Your task to perform on an android device: turn on location history Image 0: 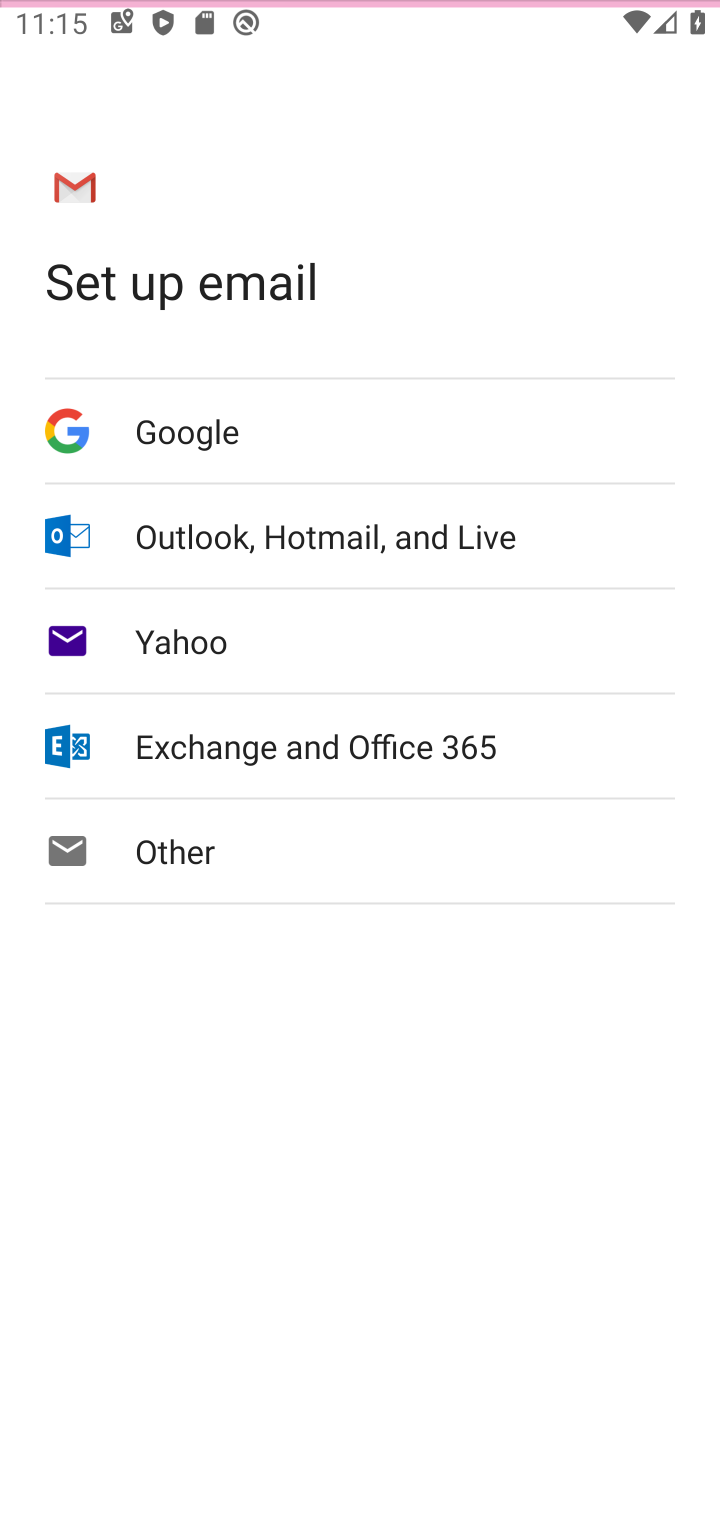
Step 0: press back button
Your task to perform on an android device: turn on location history Image 1: 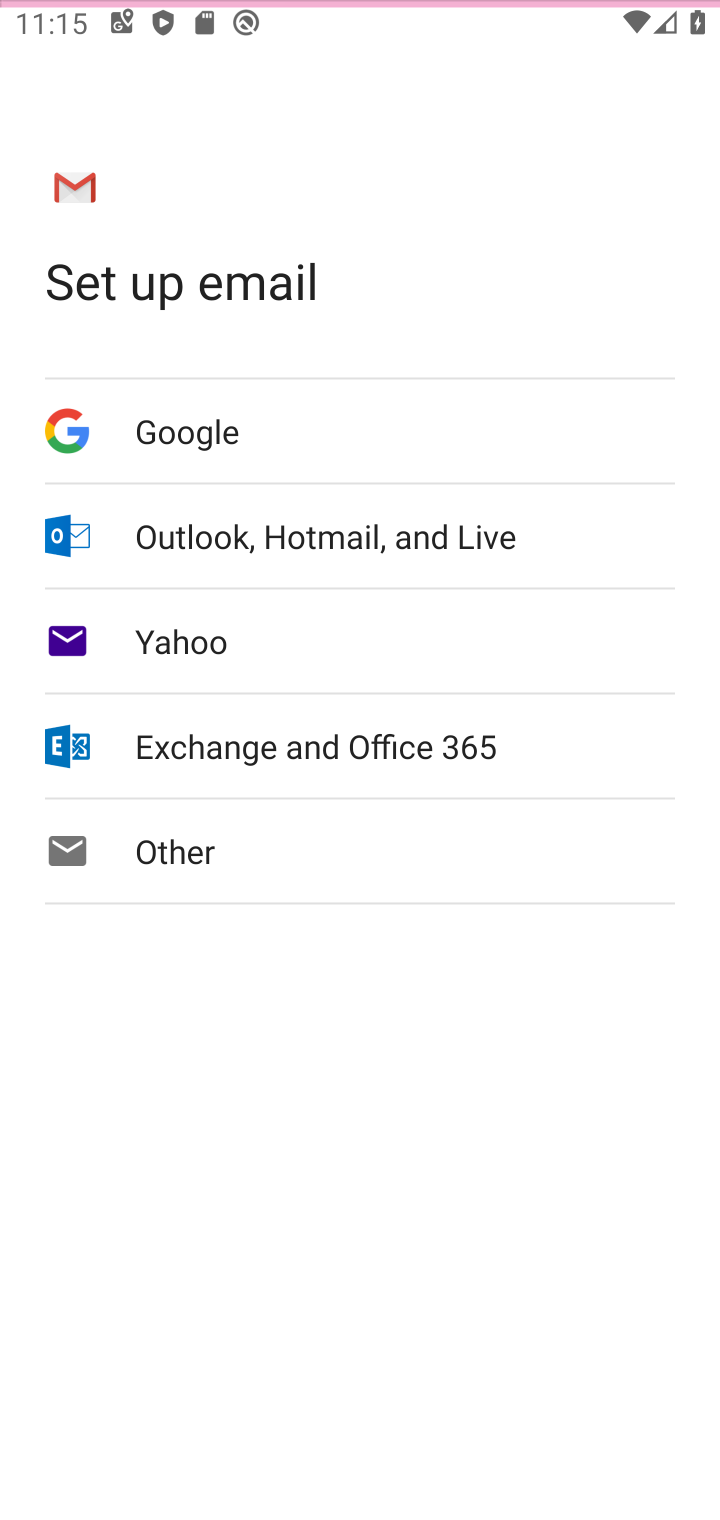
Step 1: press home button
Your task to perform on an android device: turn on location history Image 2: 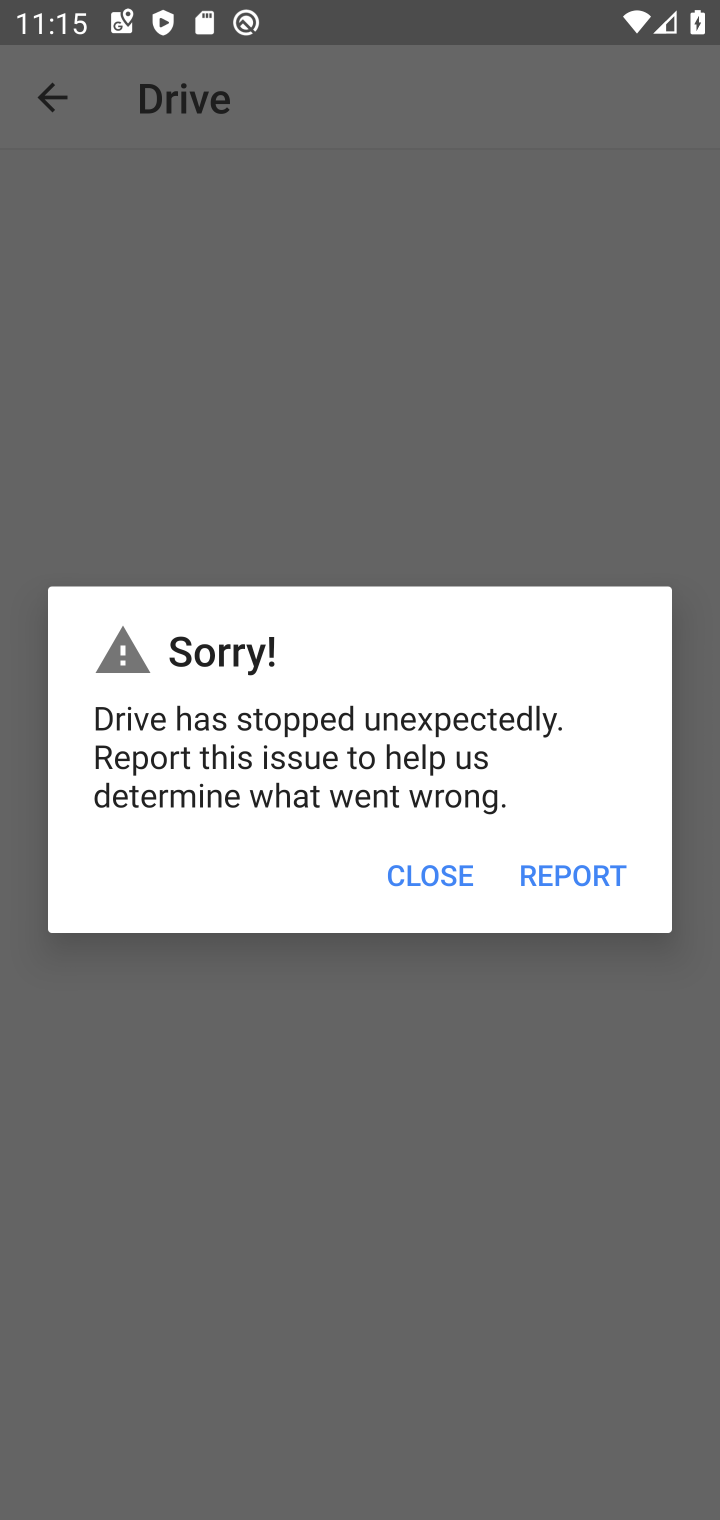
Step 2: press home button
Your task to perform on an android device: turn on location history Image 3: 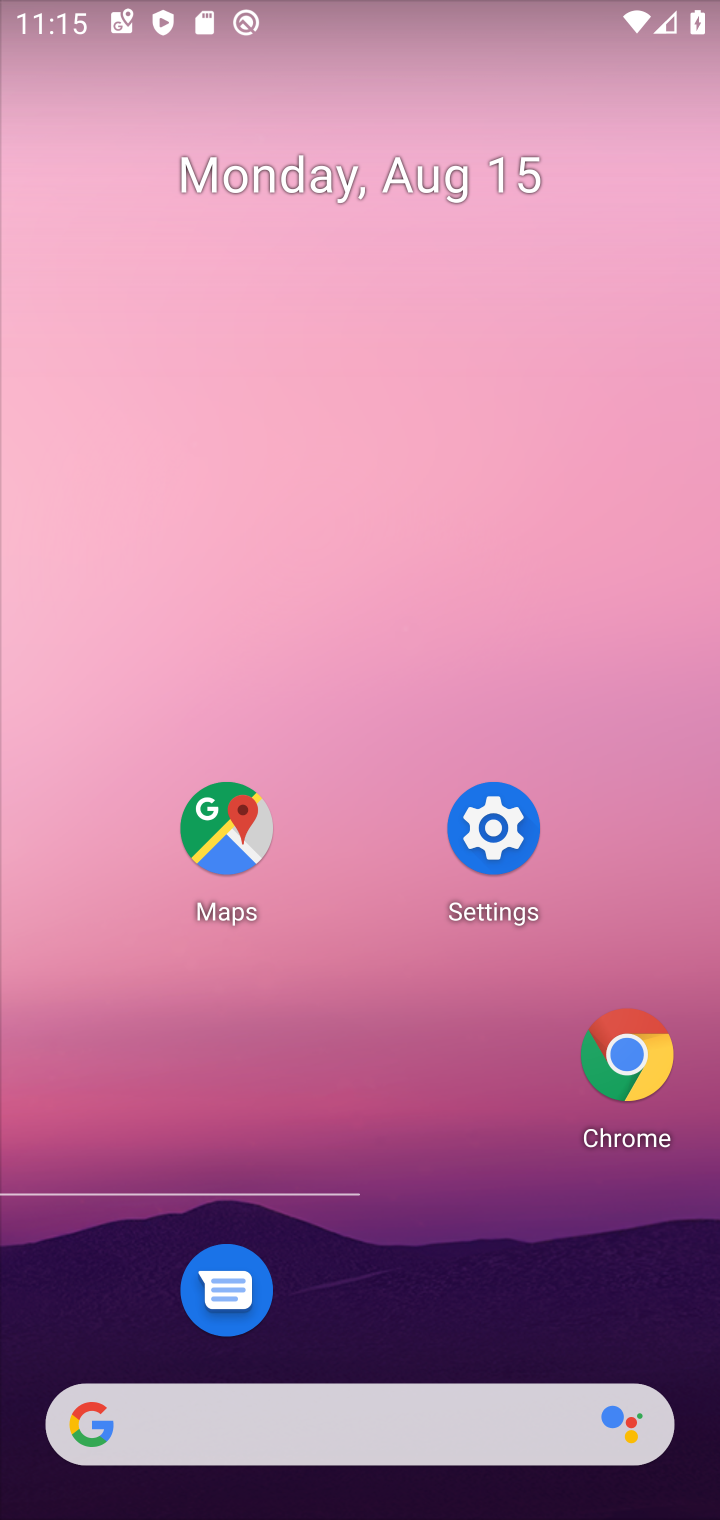
Step 3: press back button
Your task to perform on an android device: turn on location history Image 4: 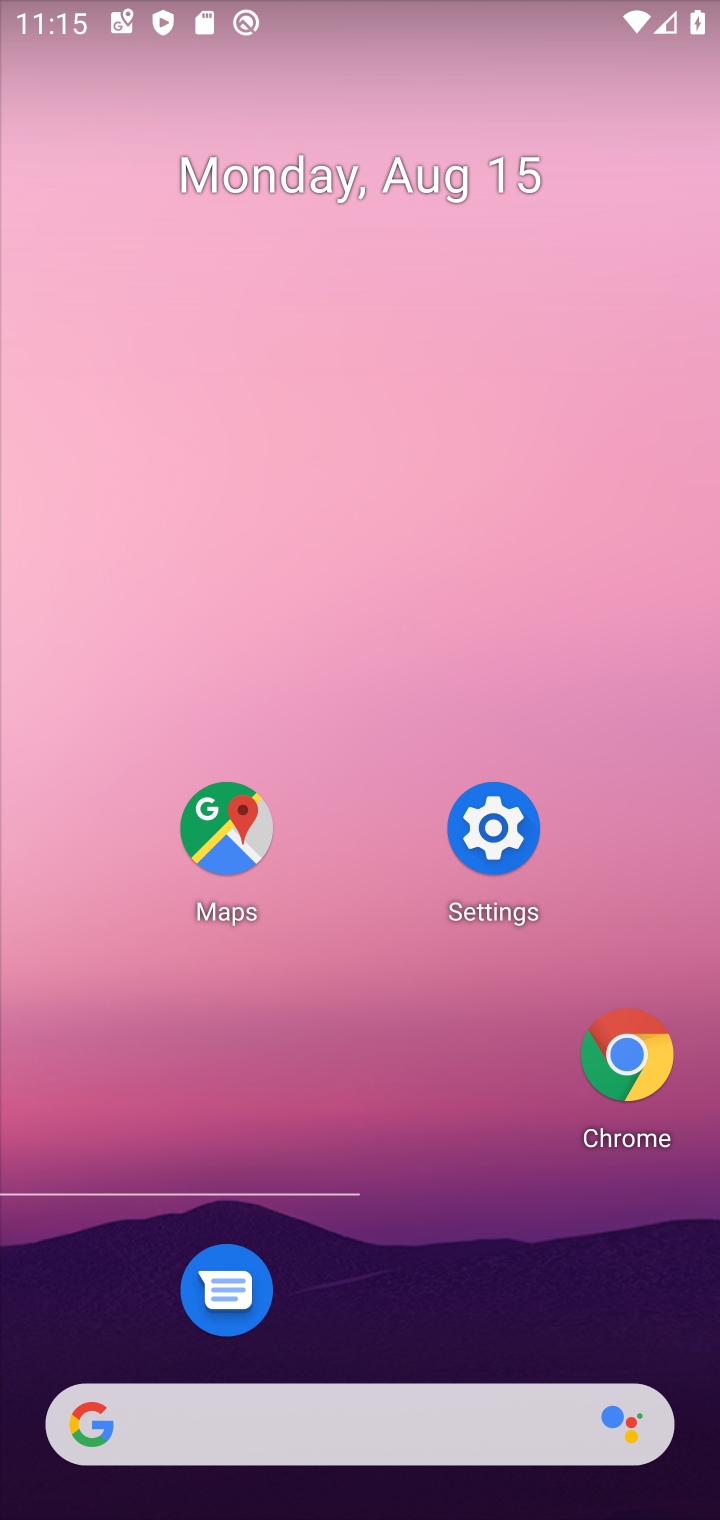
Step 4: click (223, 825)
Your task to perform on an android device: turn on location history Image 5: 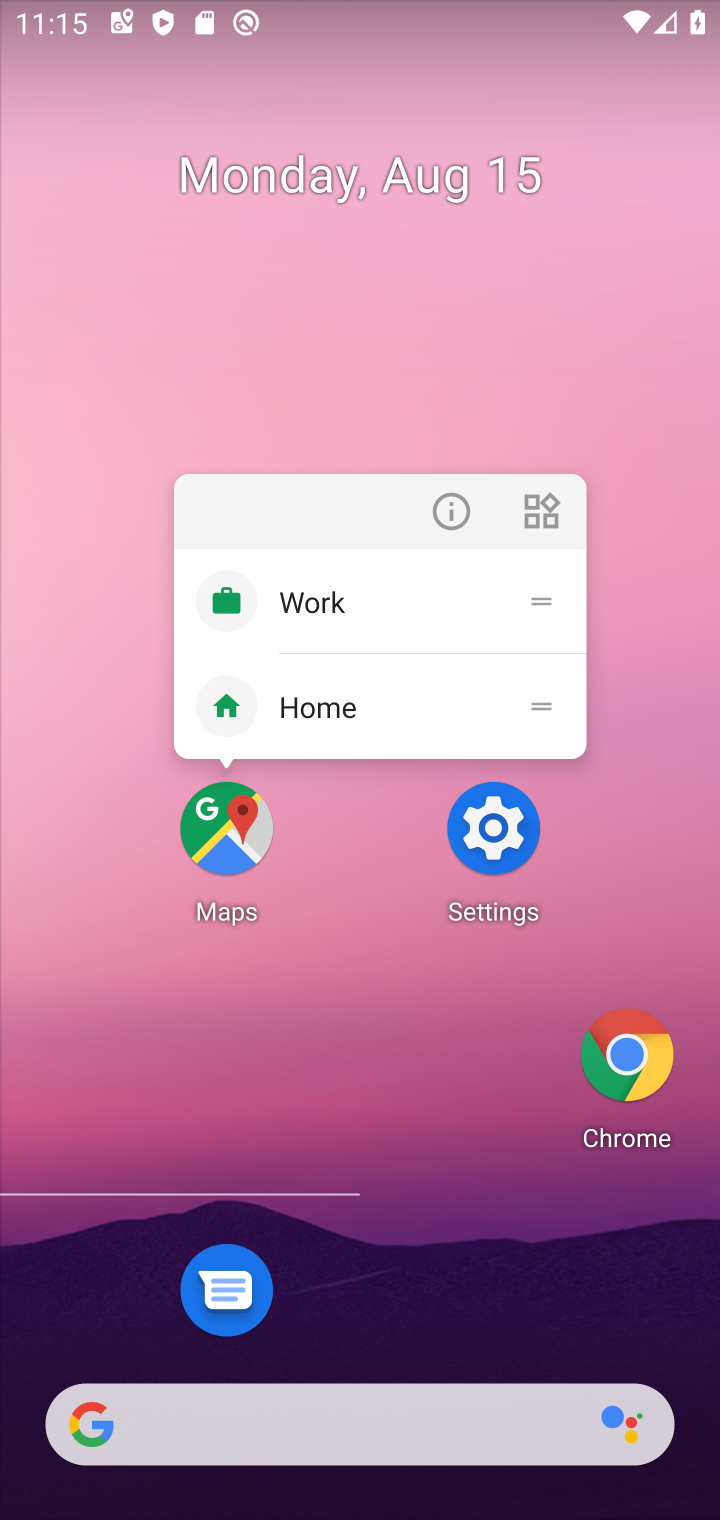
Step 5: click (223, 833)
Your task to perform on an android device: turn on location history Image 6: 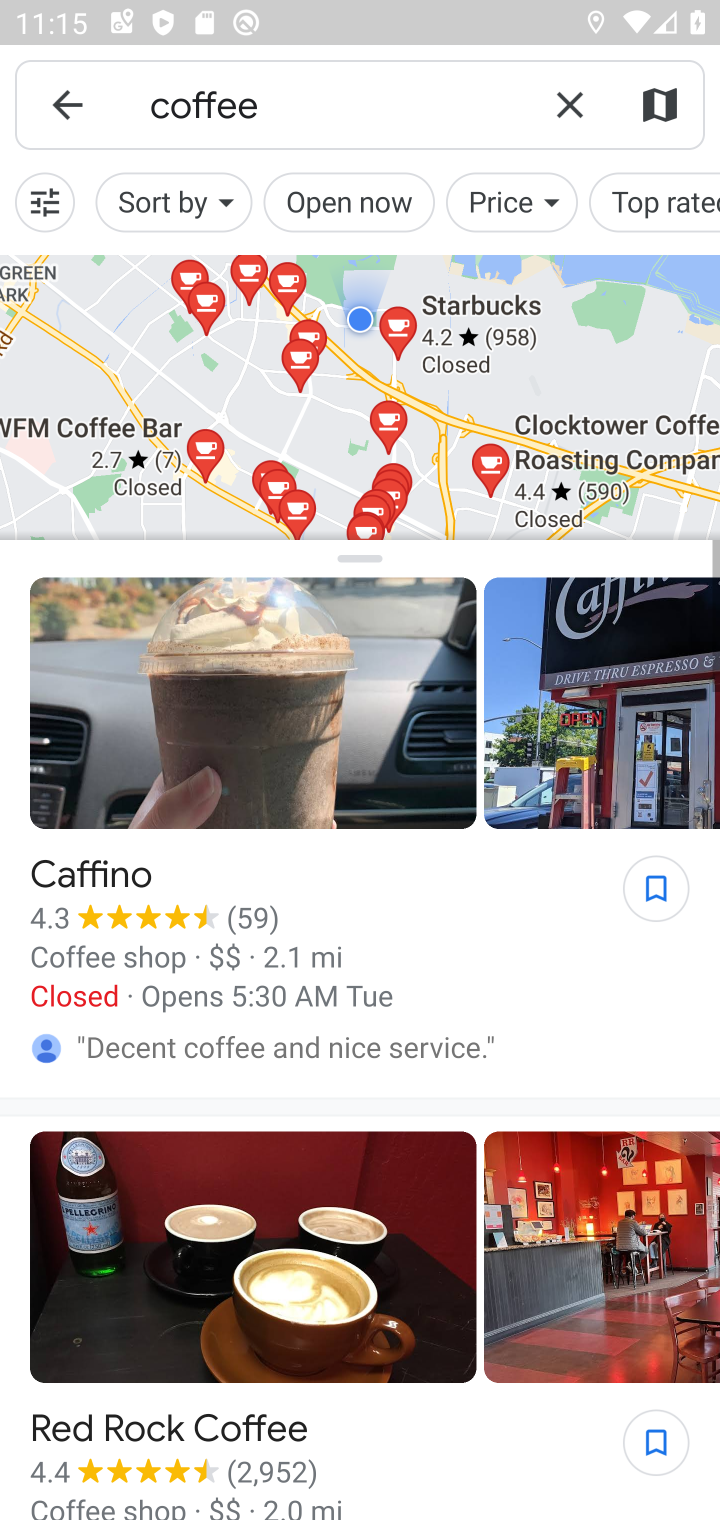
Step 6: press back button
Your task to perform on an android device: turn on location history Image 7: 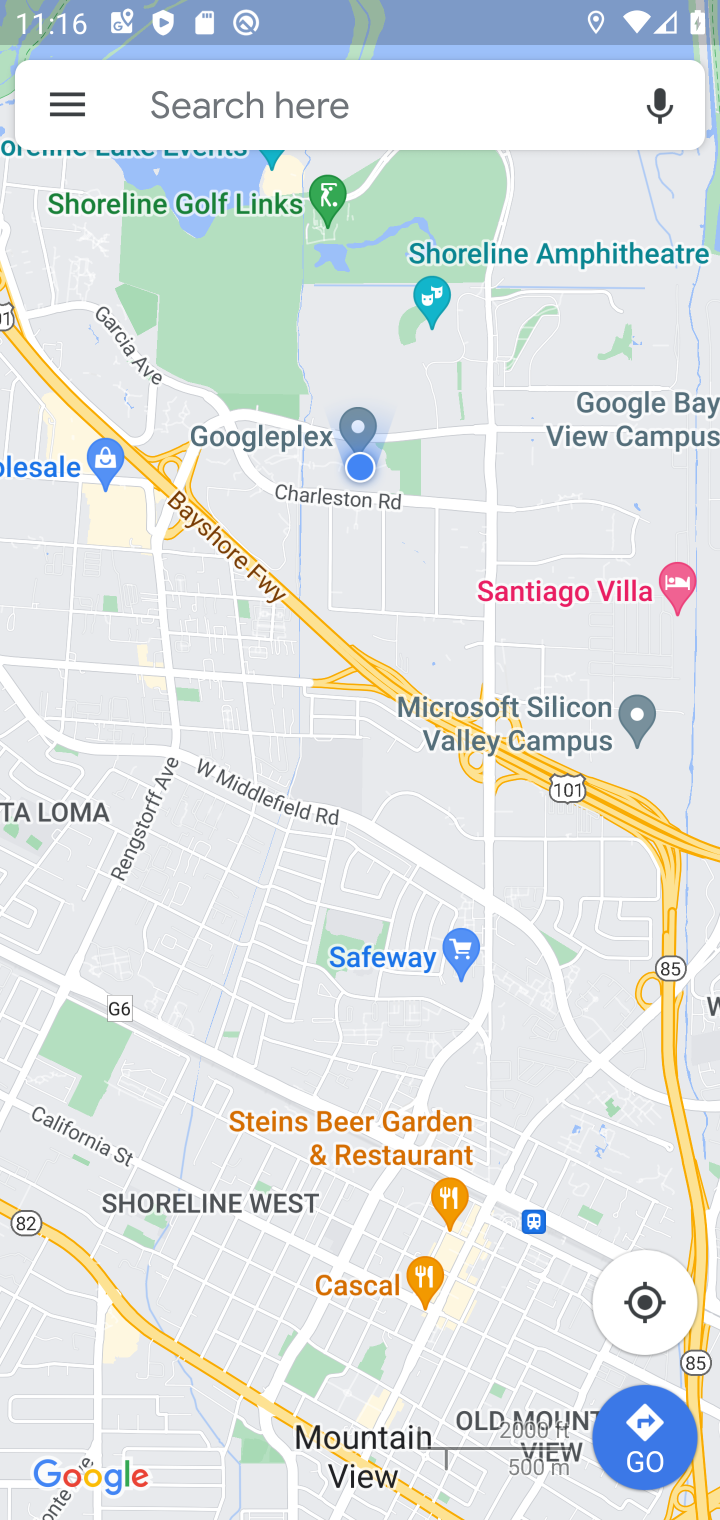
Step 7: click (63, 107)
Your task to perform on an android device: turn on location history Image 8: 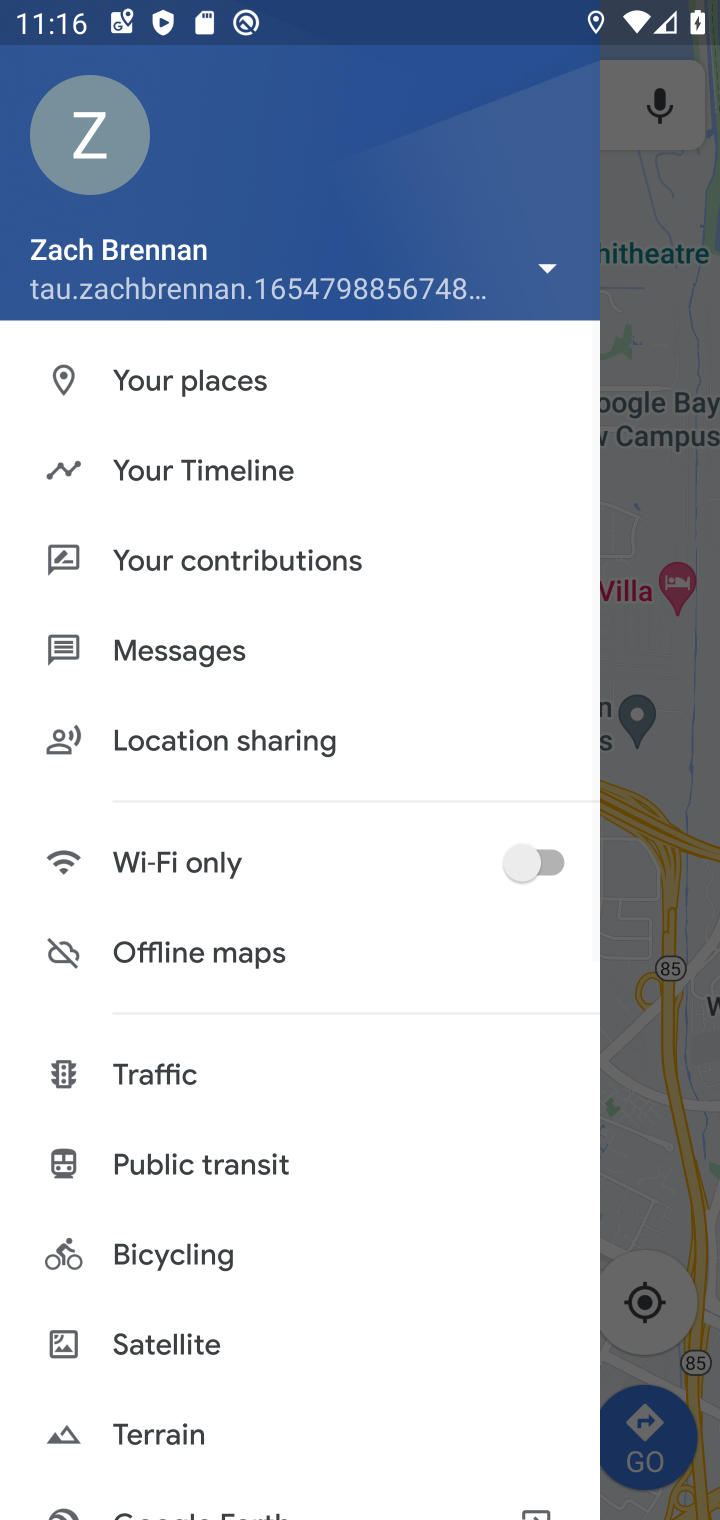
Step 8: click (244, 478)
Your task to perform on an android device: turn on location history Image 9: 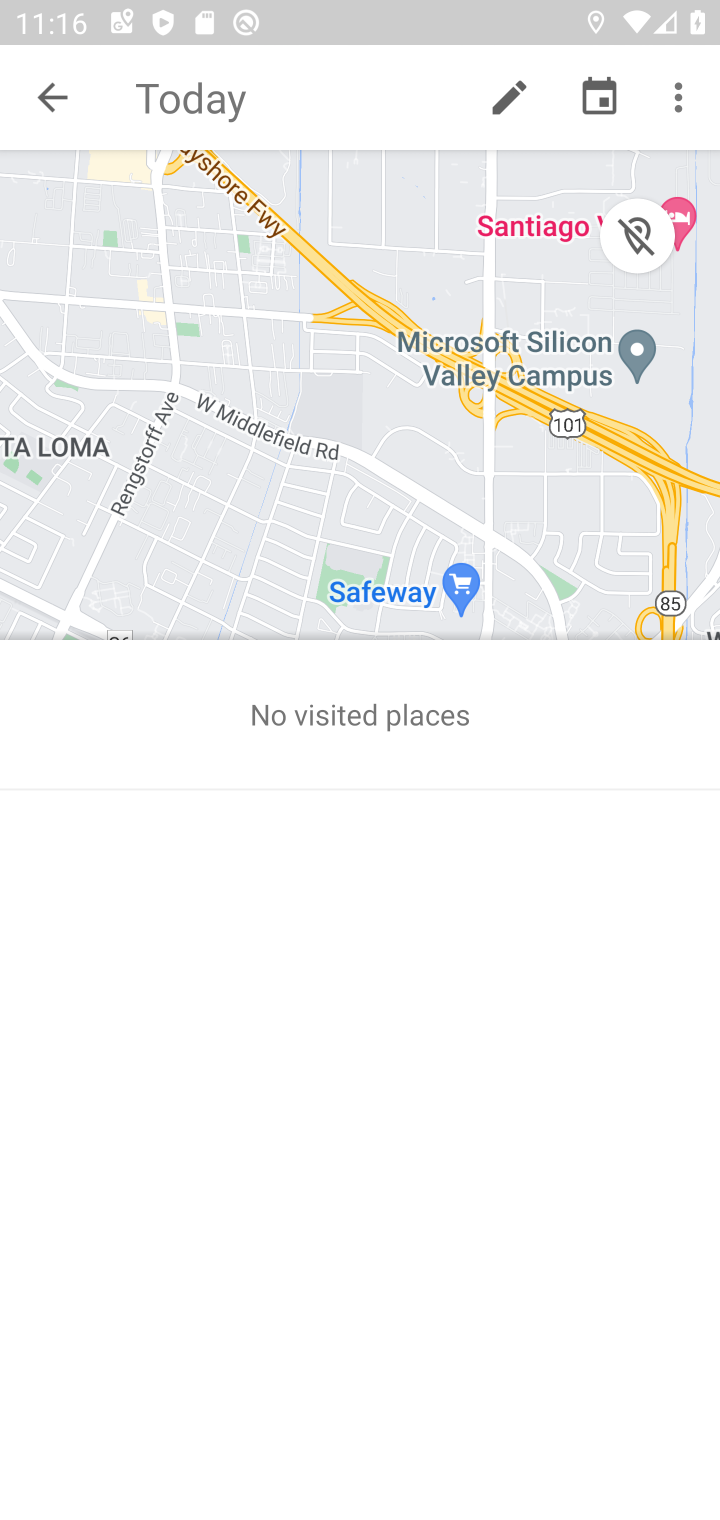
Step 9: click (673, 89)
Your task to perform on an android device: turn on location history Image 10: 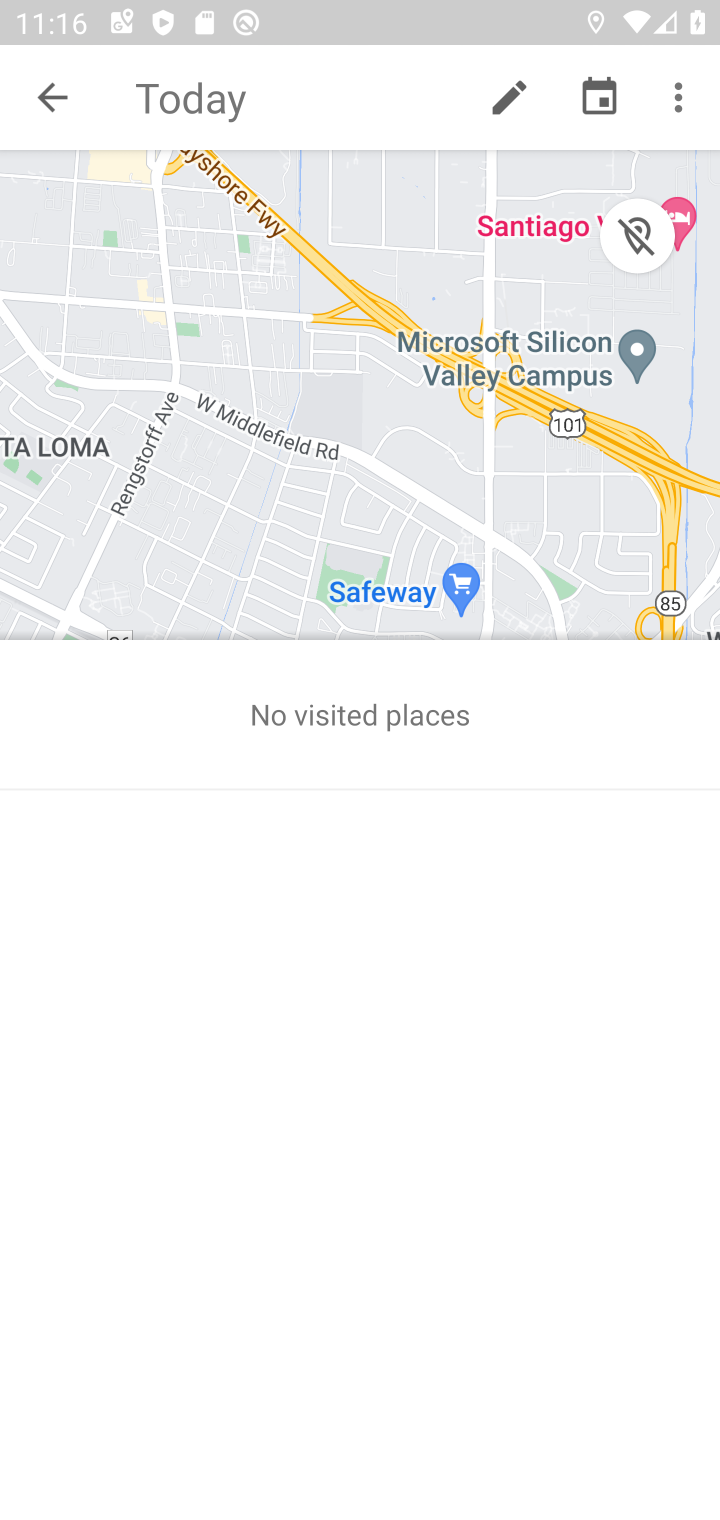
Step 10: click (678, 98)
Your task to perform on an android device: turn on location history Image 11: 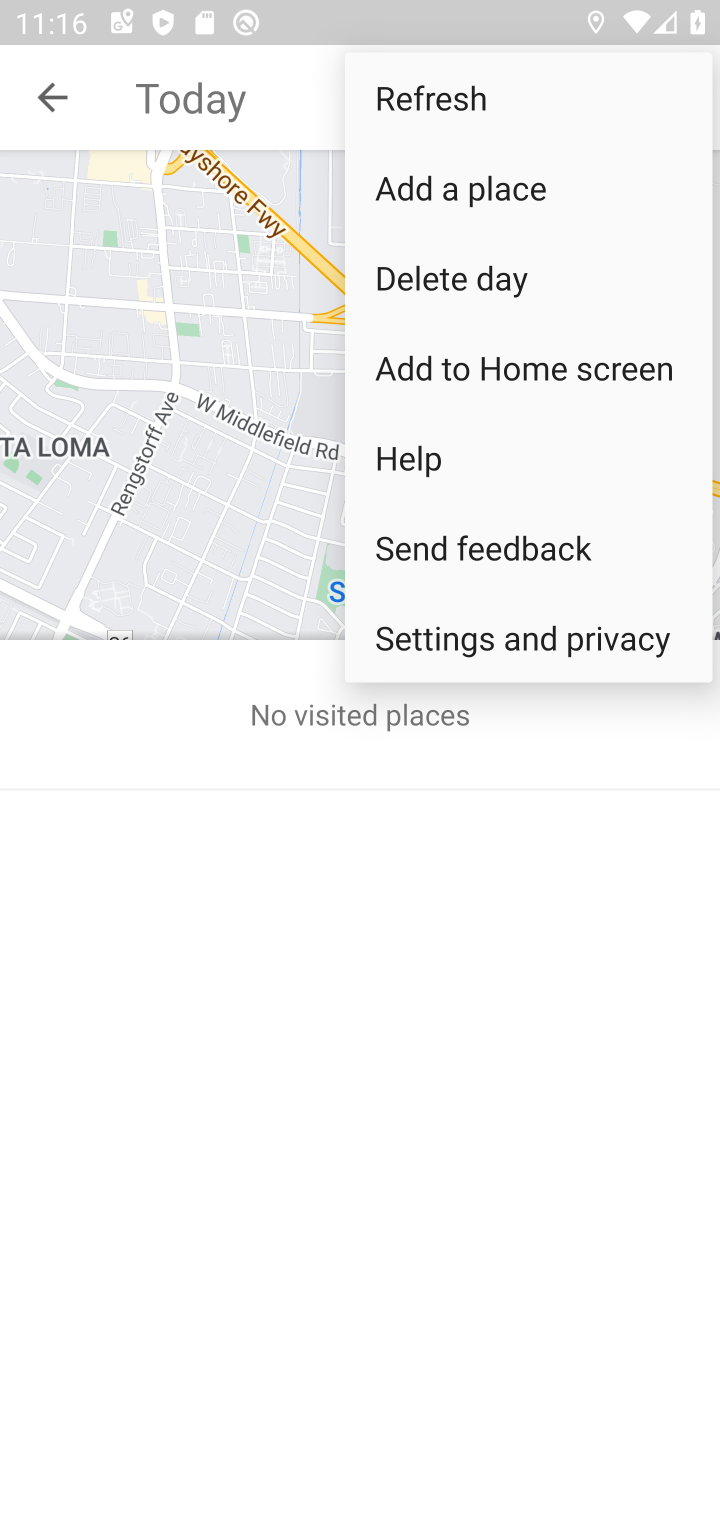
Step 11: click (513, 638)
Your task to perform on an android device: turn on location history Image 12: 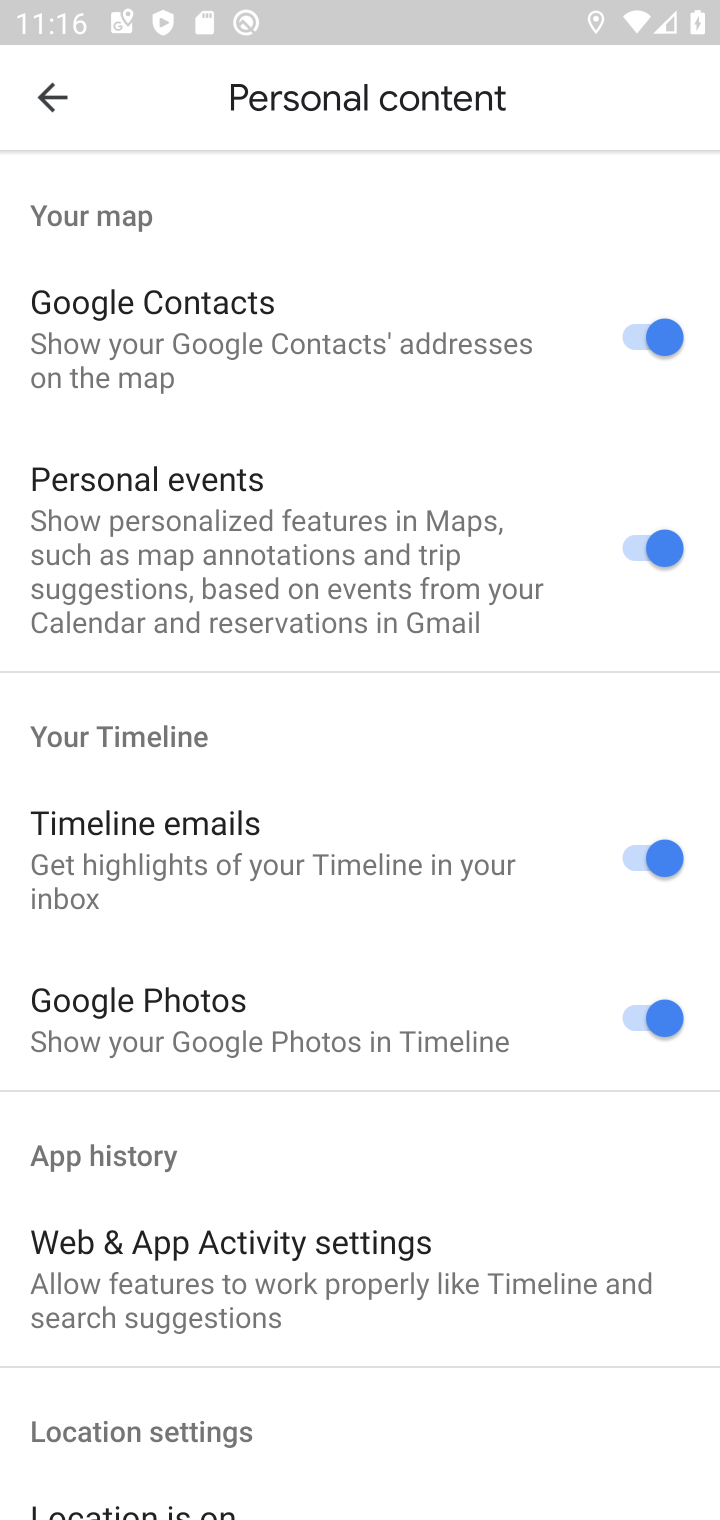
Step 12: drag from (335, 1155) to (573, 318)
Your task to perform on an android device: turn on location history Image 13: 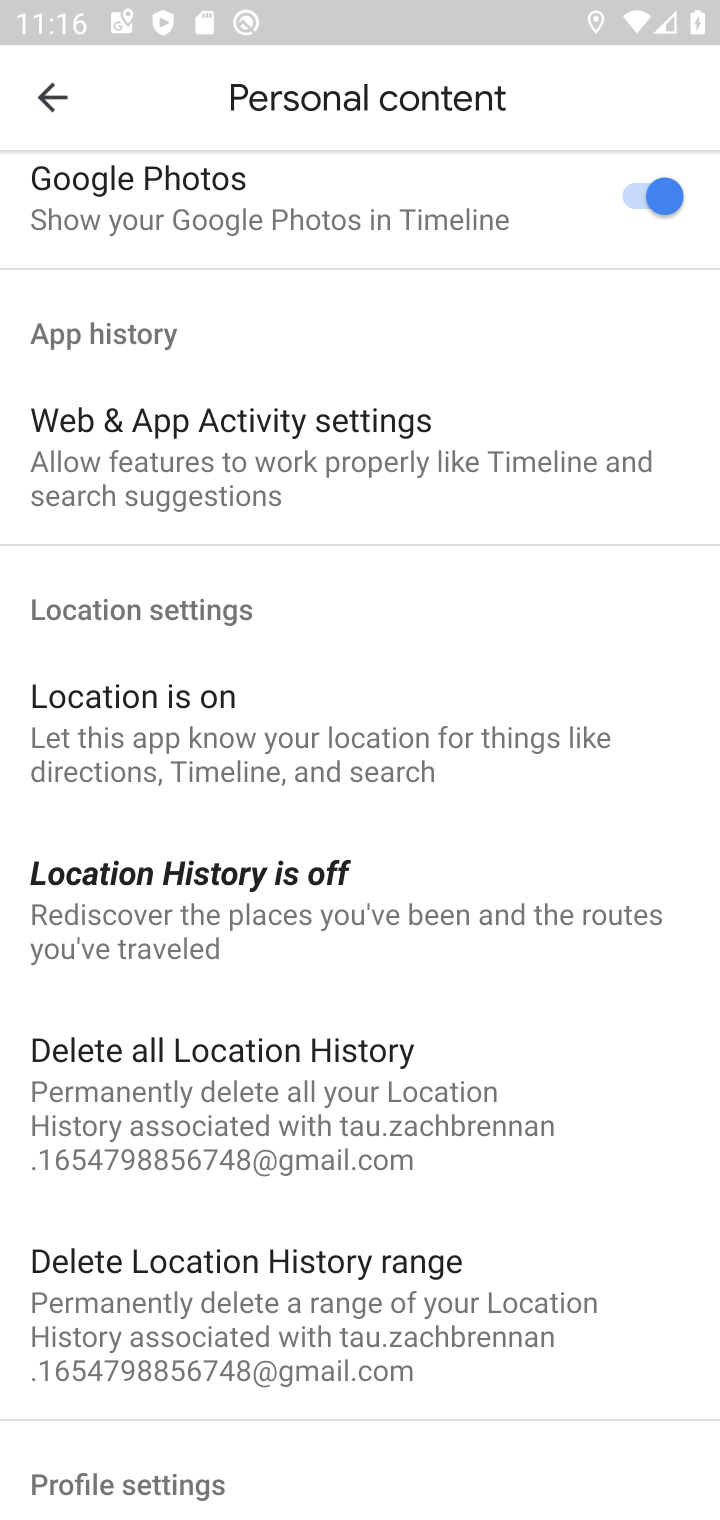
Step 13: click (297, 883)
Your task to perform on an android device: turn on location history Image 14: 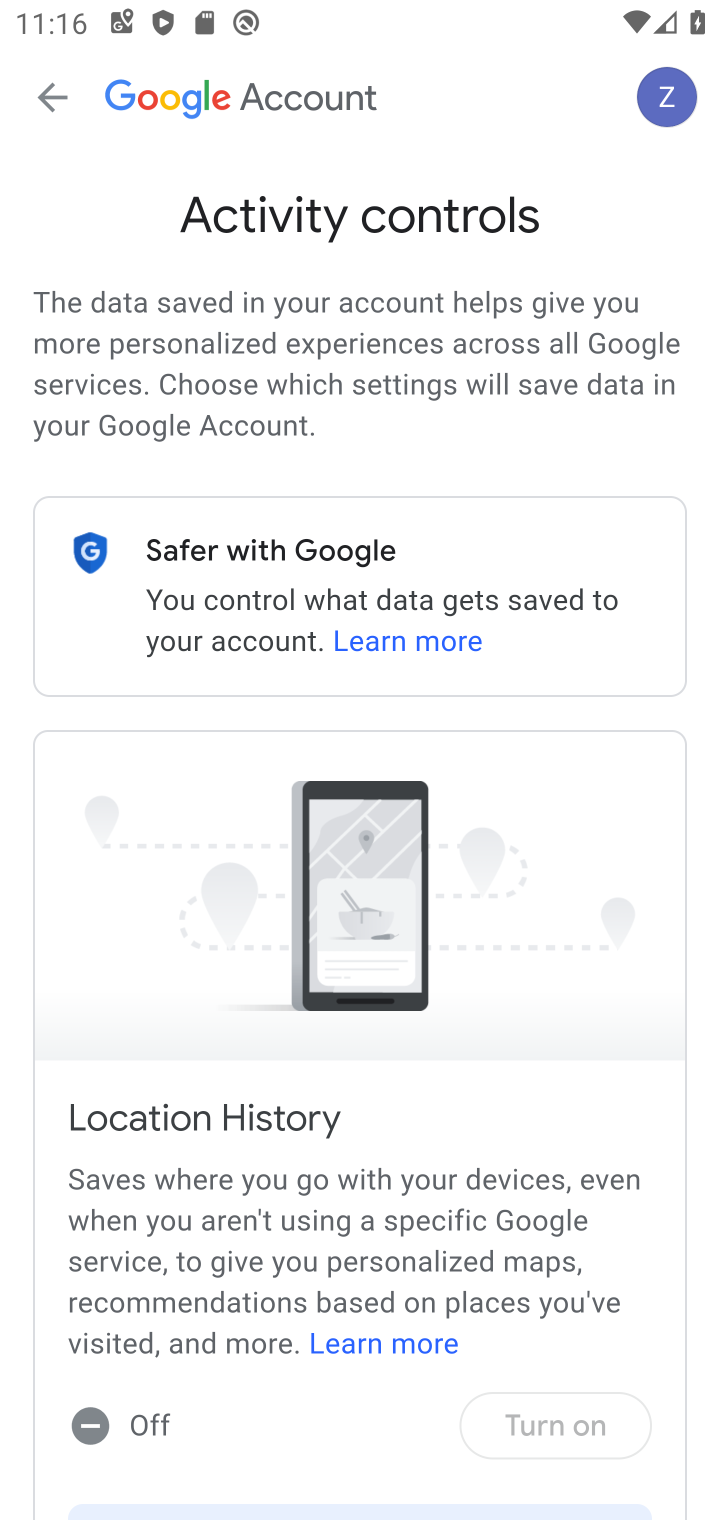
Step 14: task complete